Your task to perform on an android device: add a contact in the contacts app Image 0: 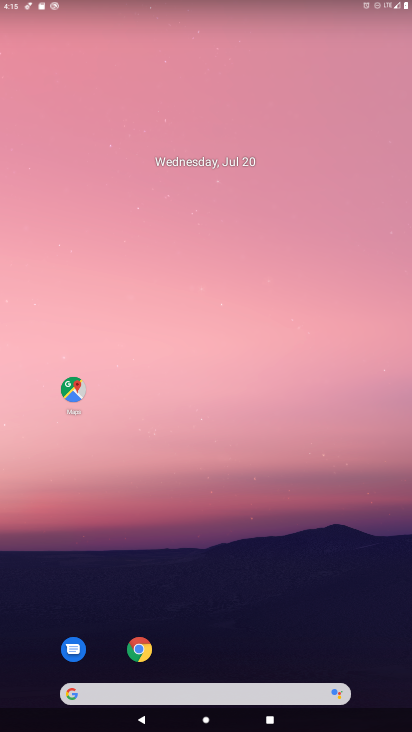
Step 0: drag from (182, 695) to (282, 78)
Your task to perform on an android device: add a contact in the contacts app Image 1: 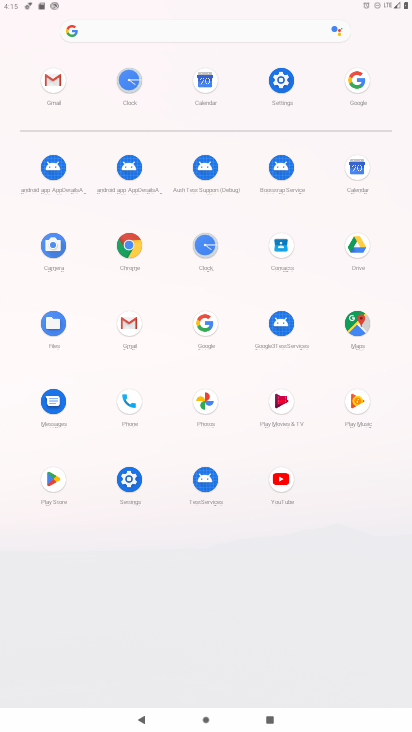
Step 1: click (282, 246)
Your task to perform on an android device: add a contact in the contacts app Image 2: 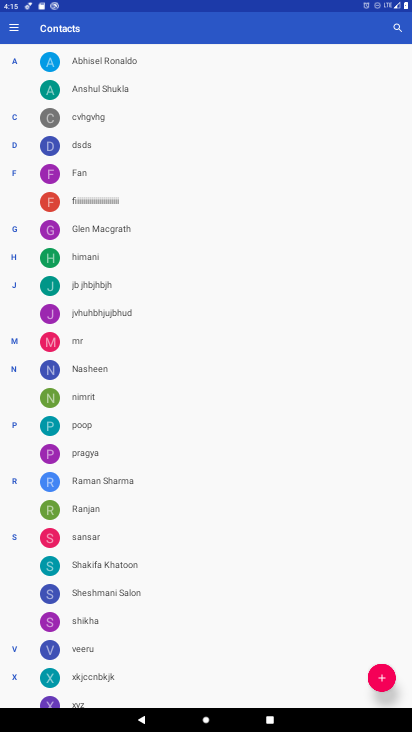
Step 2: click (382, 677)
Your task to perform on an android device: add a contact in the contacts app Image 3: 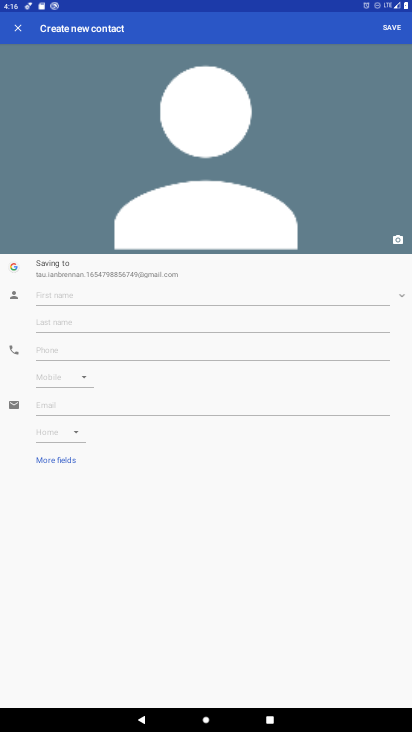
Step 3: click (367, 289)
Your task to perform on an android device: add a contact in the contacts app Image 4: 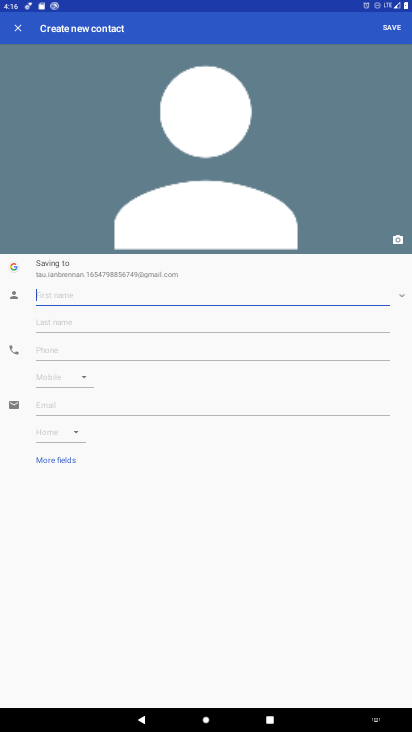
Step 4: type "Shaun"
Your task to perform on an android device: add a contact in the contacts app Image 5: 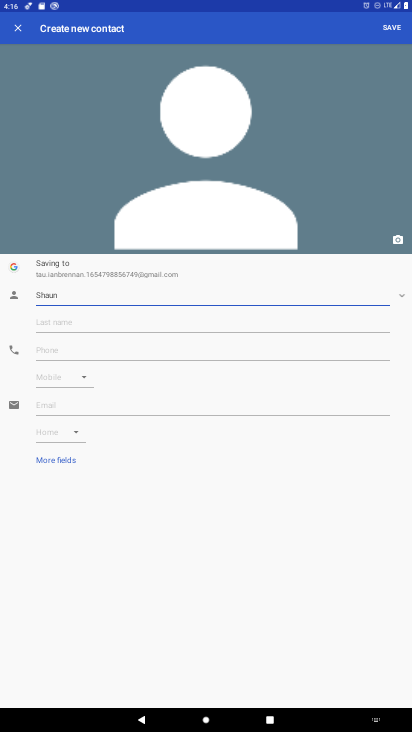
Step 5: click (309, 328)
Your task to perform on an android device: add a contact in the contacts app Image 6: 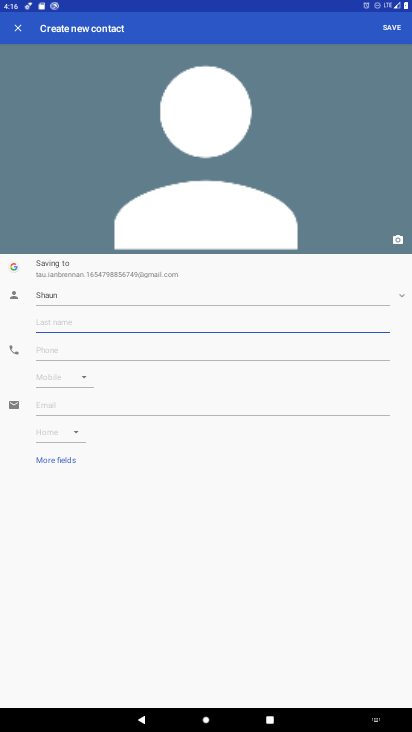
Step 6: type "Pollak"
Your task to perform on an android device: add a contact in the contacts app Image 7: 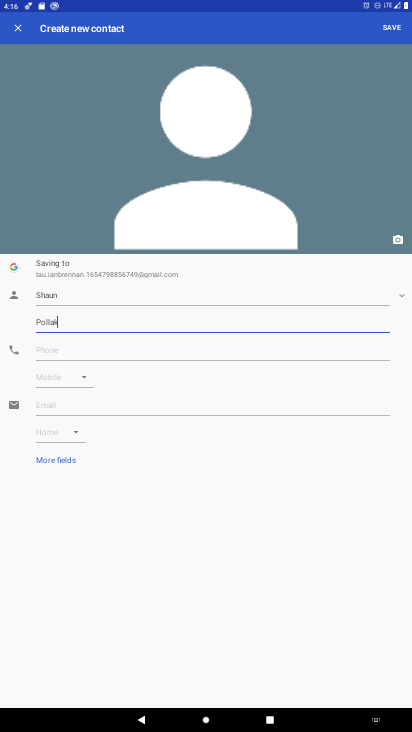
Step 7: click (244, 352)
Your task to perform on an android device: add a contact in the contacts app Image 8: 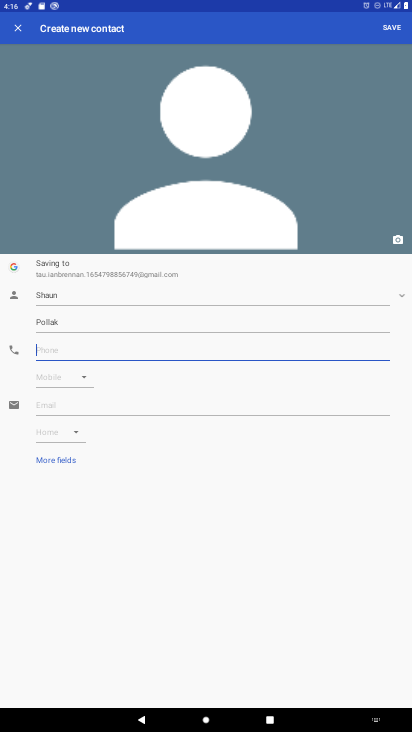
Step 8: type "9926679075"
Your task to perform on an android device: add a contact in the contacts app Image 9: 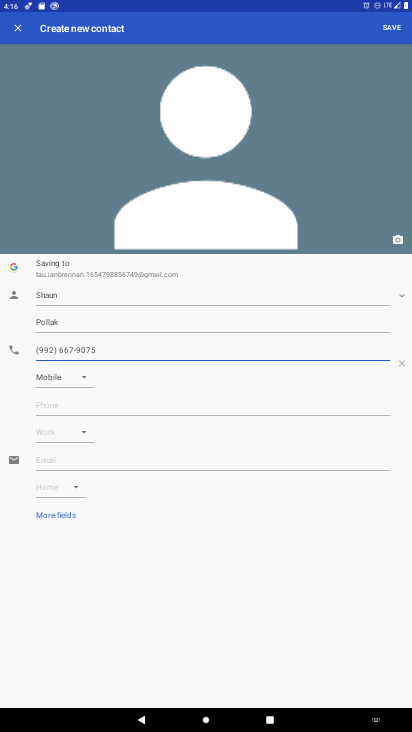
Step 9: click (391, 32)
Your task to perform on an android device: add a contact in the contacts app Image 10: 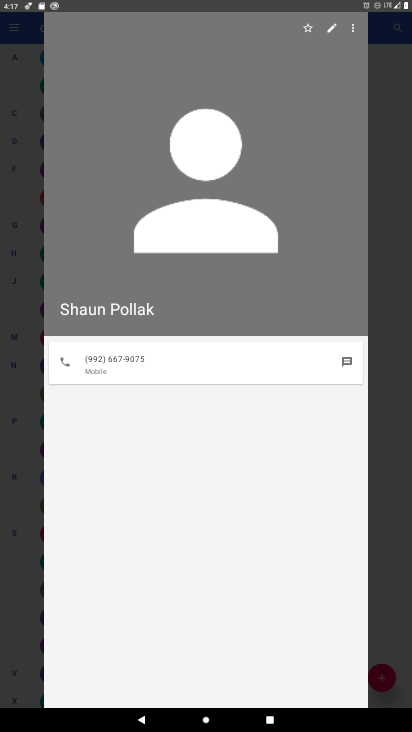
Step 10: task complete